Your task to perform on an android device: turn off priority inbox in the gmail app Image 0: 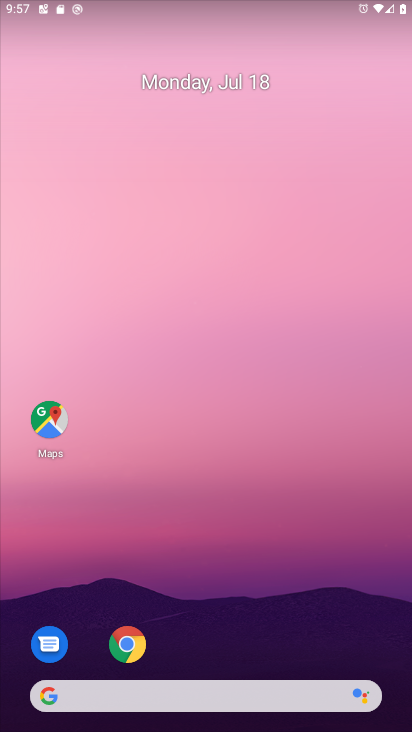
Step 0: drag from (269, 668) to (288, 167)
Your task to perform on an android device: turn off priority inbox in the gmail app Image 1: 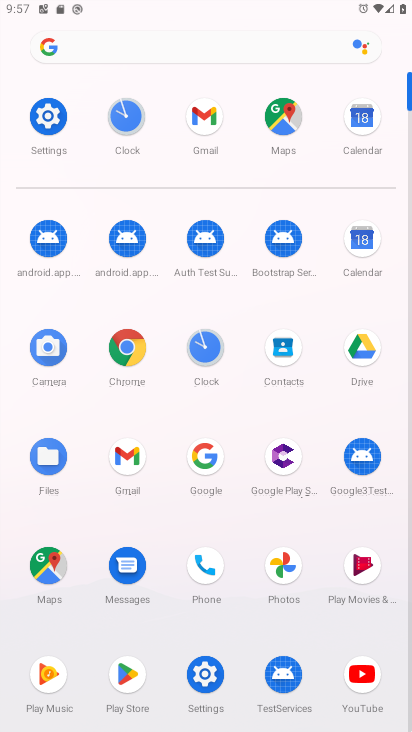
Step 1: click (203, 138)
Your task to perform on an android device: turn off priority inbox in the gmail app Image 2: 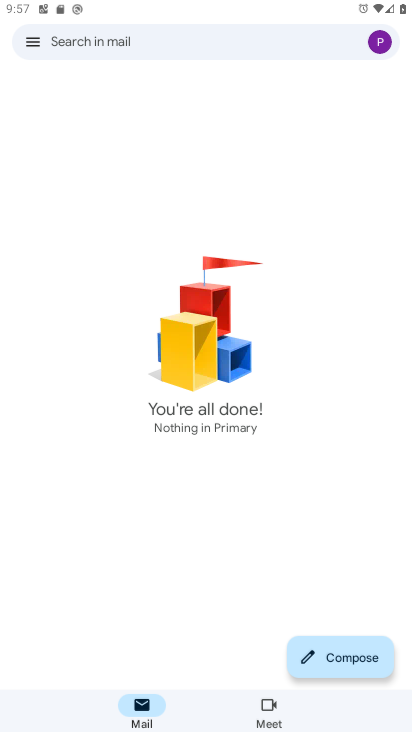
Step 2: task complete